Your task to perform on an android device: turn on notifications settings in the gmail app Image 0: 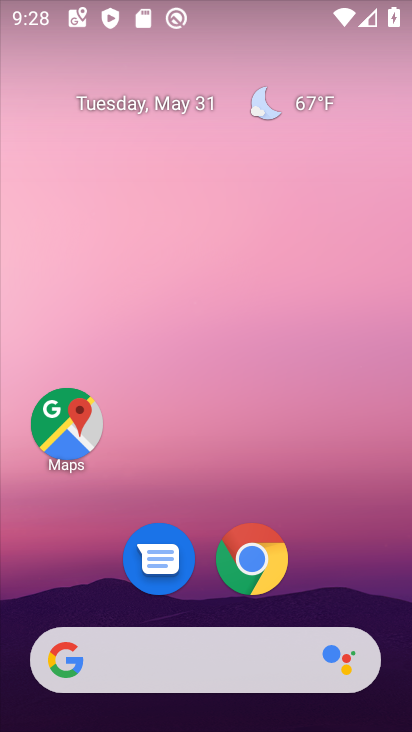
Step 0: drag from (322, 587) to (318, 16)
Your task to perform on an android device: turn on notifications settings in the gmail app Image 1: 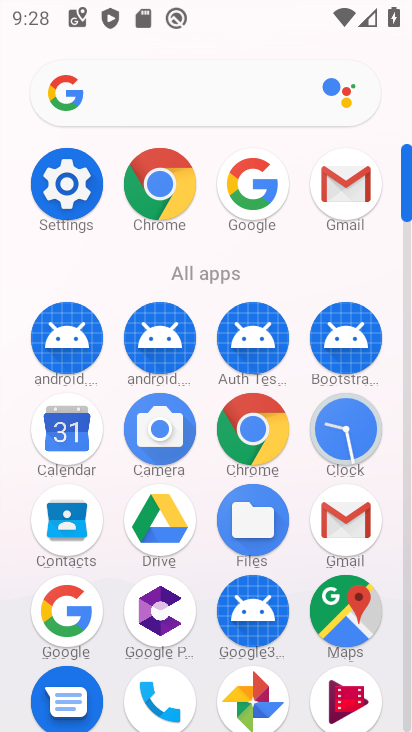
Step 1: click (346, 179)
Your task to perform on an android device: turn on notifications settings in the gmail app Image 2: 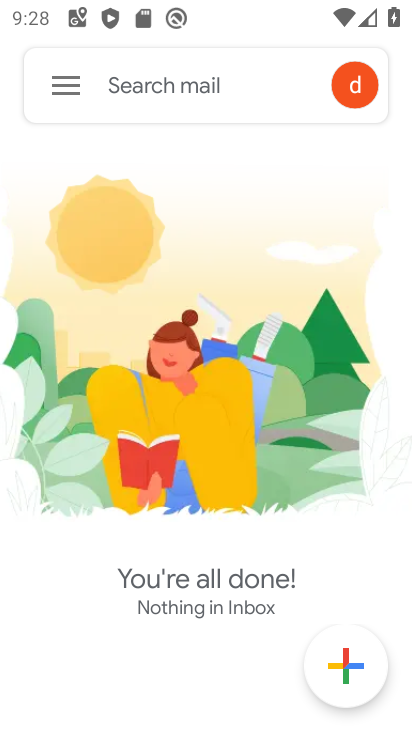
Step 2: click (53, 89)
Your task to perform on an android device: turn on notifications settings in the gmail app Image 3: 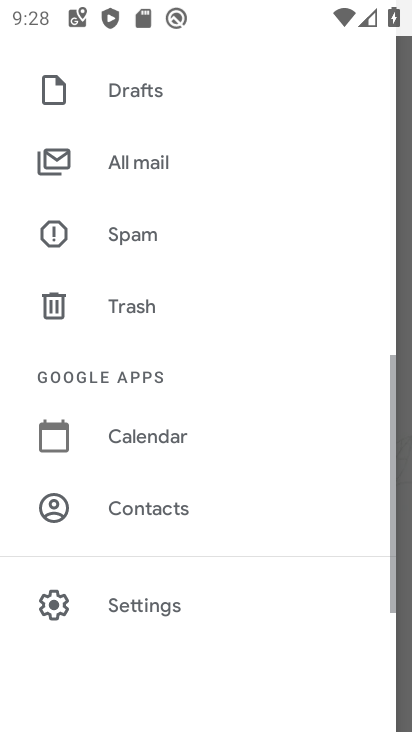
Step 3: click (120, 599)
Your task to perform on an android device: turn on notifications settings in the gmail app Image 4: 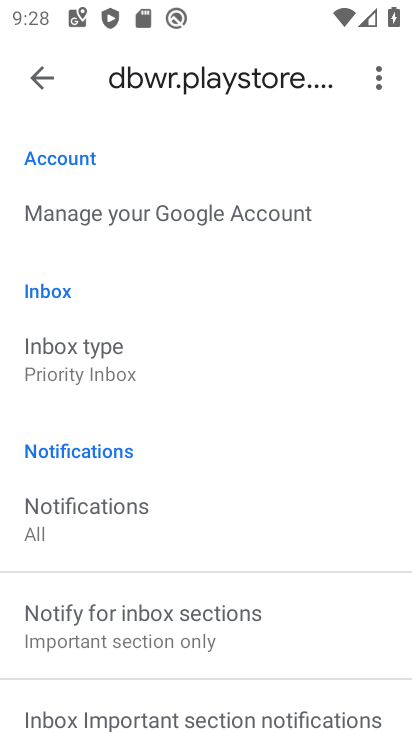
Step 4: task complete